Your task to perform on an android device: remove spam from my inbox in the gmail app Image 0: 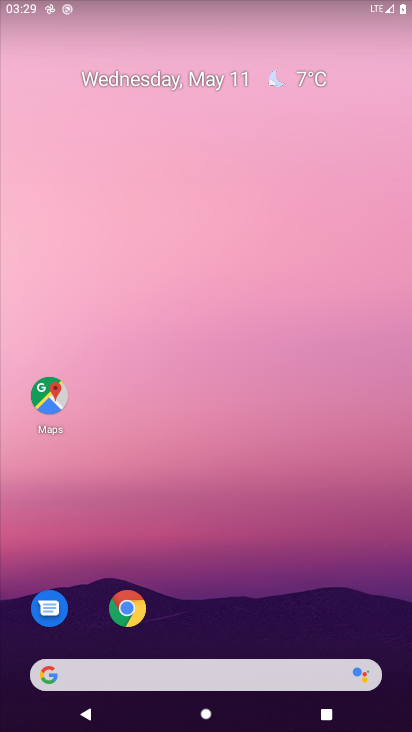
Step 0: drag from (243, 627) to (302, 112)
Your task to perform on an android device: remove spam from my inbox in the gmail app Image 1: 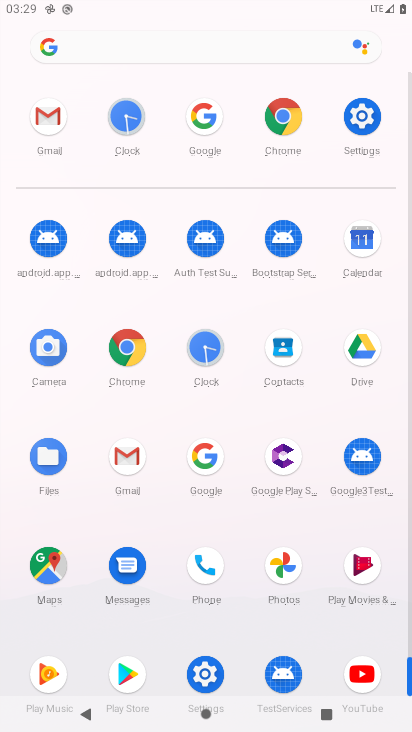
Step 1: click (118, 457)
Your task to perform on an android device: remove spam from my inbox in the gmail app Image 2: 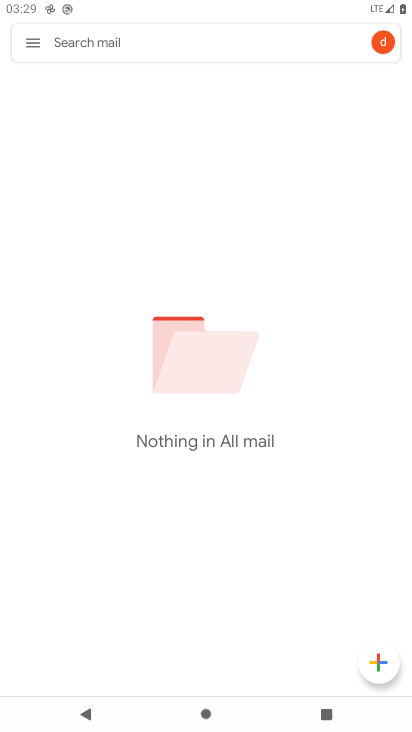
Step 2: click (24, 53)
Your task to perform on an android device: remove spam from my inbox in the gmail app Image 3: 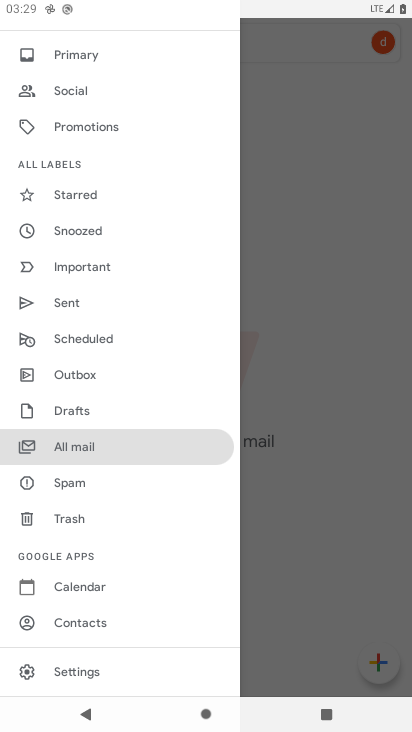
Step 3: click (90, 481)
Your task to perform on an android device: remove spam from my inbox in the gmail app Image 4: 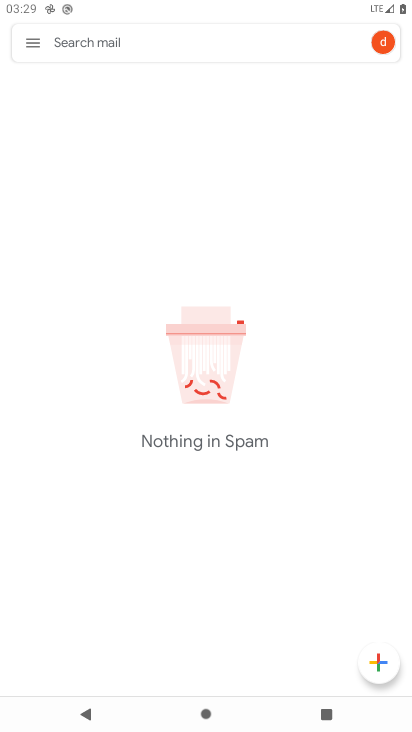
Step 4: task complete